Your task to perform on an android device: check storage Image 0: 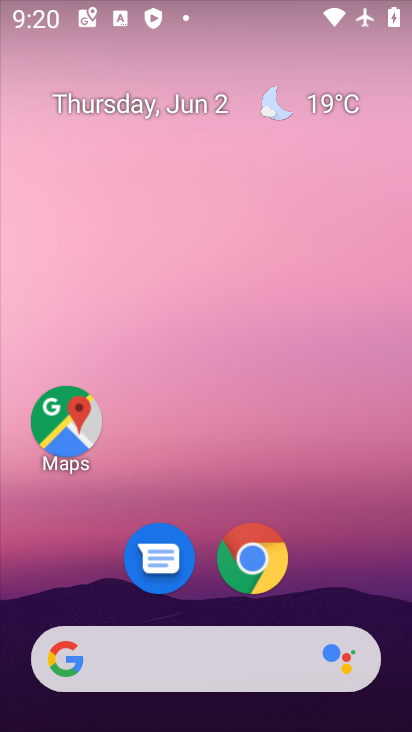
Step 0: drag from (391, 618) to (265, 30)
Your task to perform on an android device: check storage Image 1: 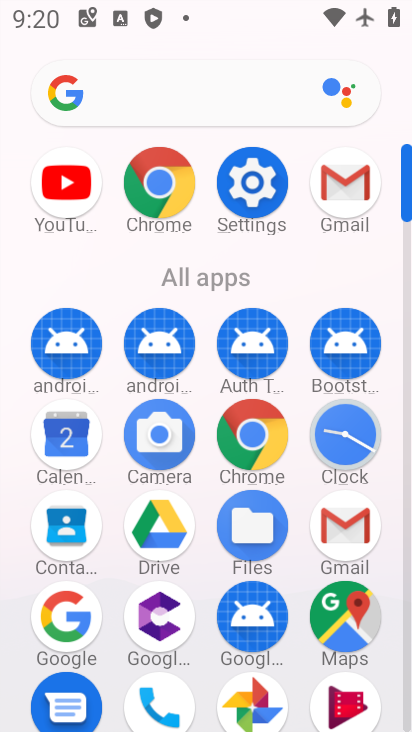
Step 1: click (406, 715)
Your task to perform on an android device: check storage Image 2: 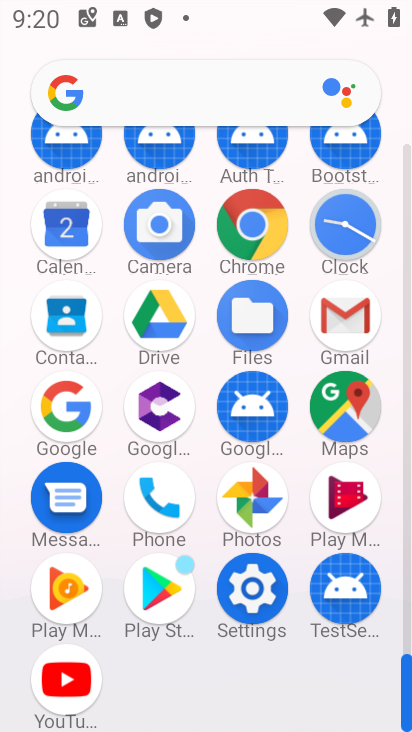
Step 2: click (244, 583)
Your task to perform on an android device: check storage Image 3: 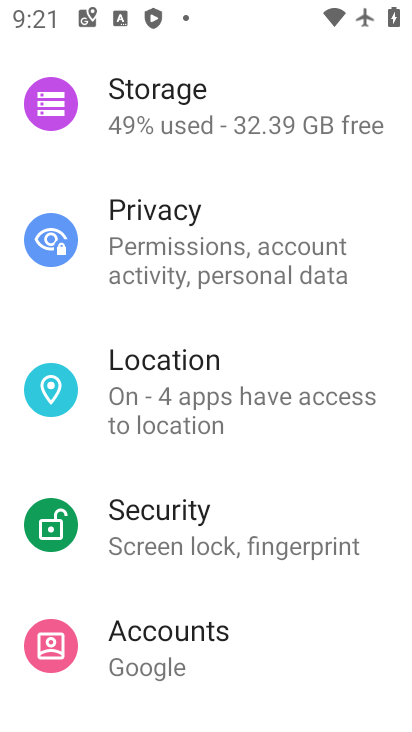
Step 3: click (244, 583)
Your task to perform on an android device: check storage Image 4: 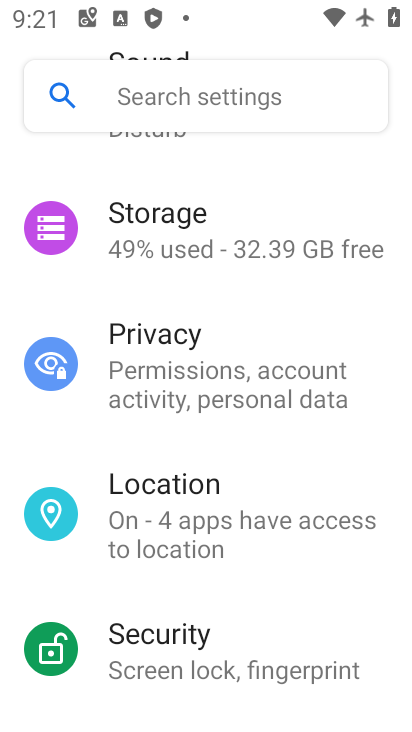
Step 4: click (140, 210)
Your task to perform on an android device: check storage Image 5: 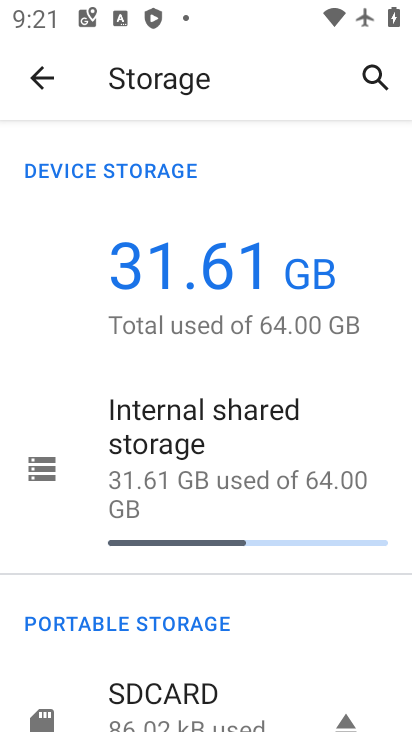
Step 5: task complete